Your task to perform on an android device: Open calendar and show me the first week of next month Image 0: 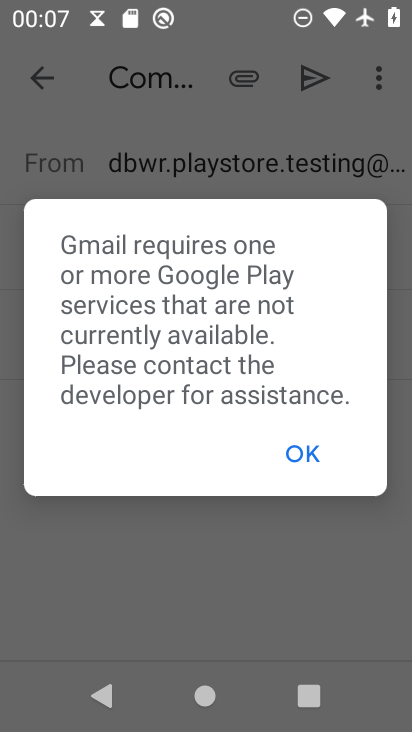
Step 0: press back button
Your task to perform on an android device: Open calendar and show me the first week of next month Image 1: 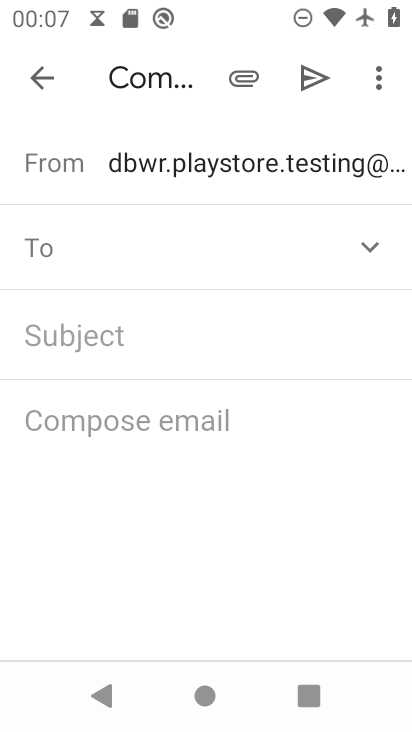
Step 1: press home button
Your task to perform on an android device: Open calendar and show me the first week of next month Image 2: 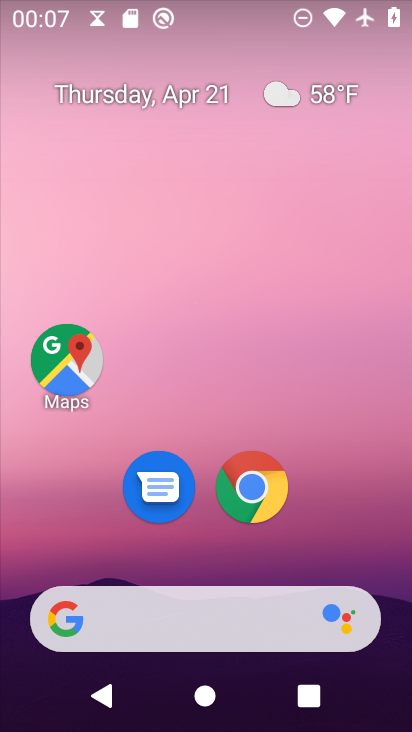
Step 2: drag from (337, 510) to (170, 21)
Your task to perform on an android device: Open calendar and show me the first week of next month Image 3: 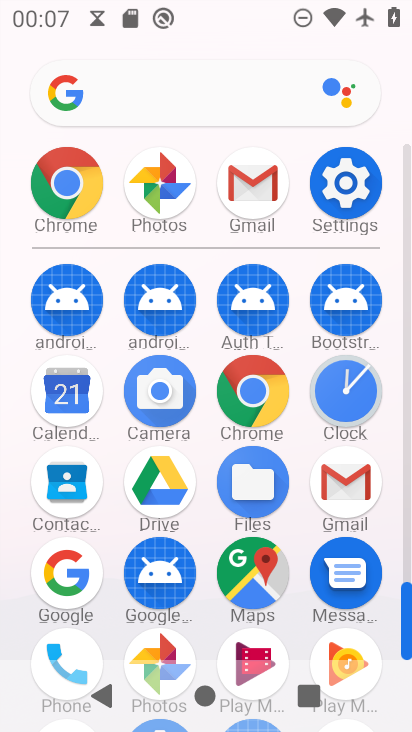
Step 3: drag from (4, 503) to (1, 171)
Your task to perform on an android device: Open calendar and show me the first week of next month Image 4: 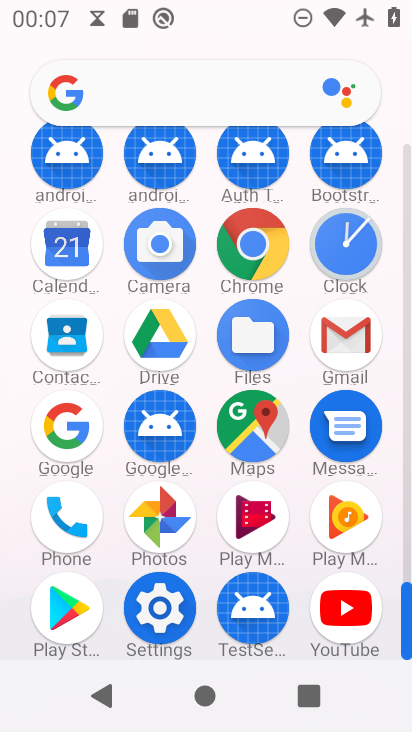
Step 4: drag from (16, 278) to (14, 553)
Your task to perform on an android device: Open calendar and show me the first week of next month Image 5: 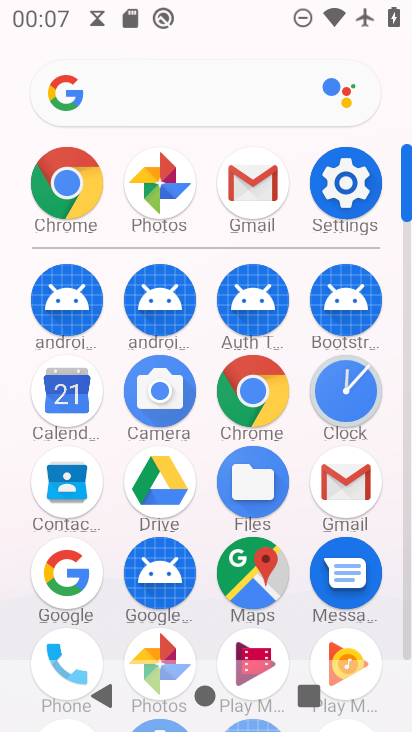
Step 5: drag from (7, 633) to (2, 363)
Your task to perform on an android device: Open calendar and show me the first week of next month Image 6: 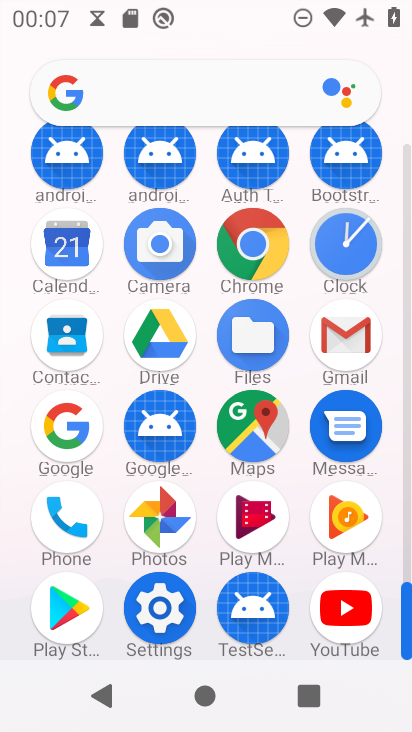
Step 6: click (60, 236)
Your task to perform on an android device: Open calendar and show me the first week of next month Image 7: 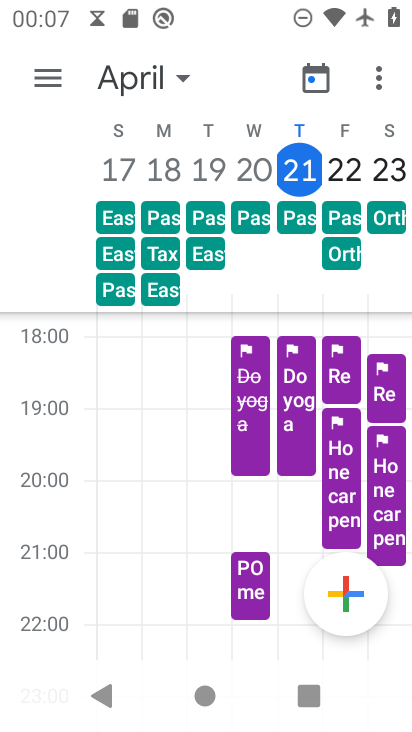
Step 7: click (127, 81)
Your task to perform on an android device: Open calendar and show me the first week of next month Image 8: 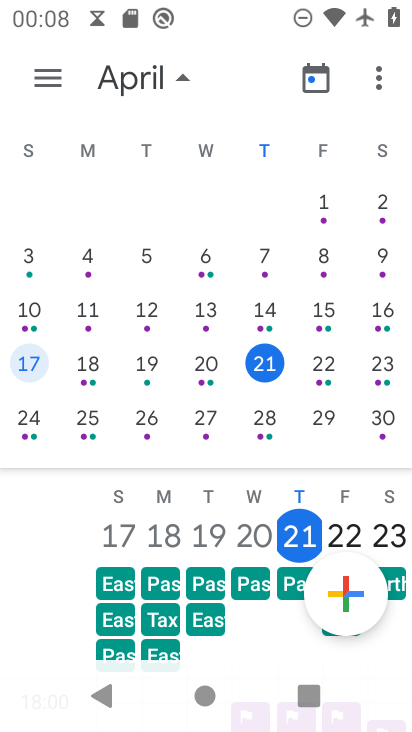
Step 8: drag from (361, 309) to (6, 306)
Your task to perform on an android device: Open calendar and show me the first week of next month Image 9: 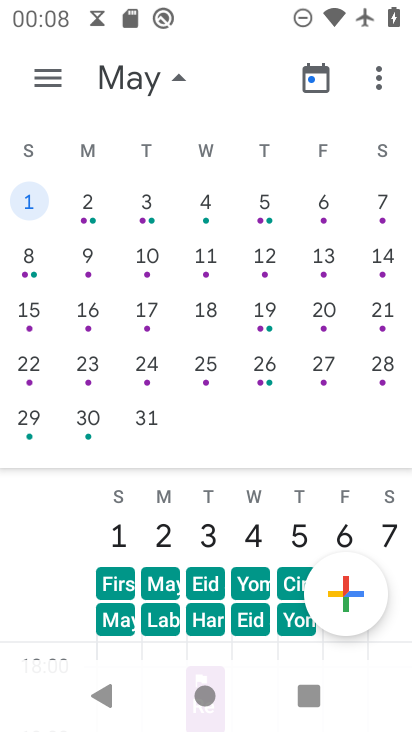
Step 9: click (37, 196)
Your task to perform on an android device: Open calendar and show me the first week of next month Image 10: 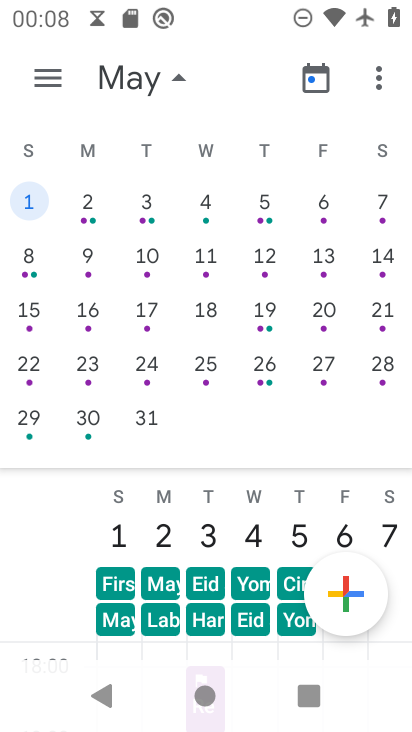
Step 10: click (63, 80)
Your task to perform on an android device: Open calendar and show me the first week of next month Image 11: 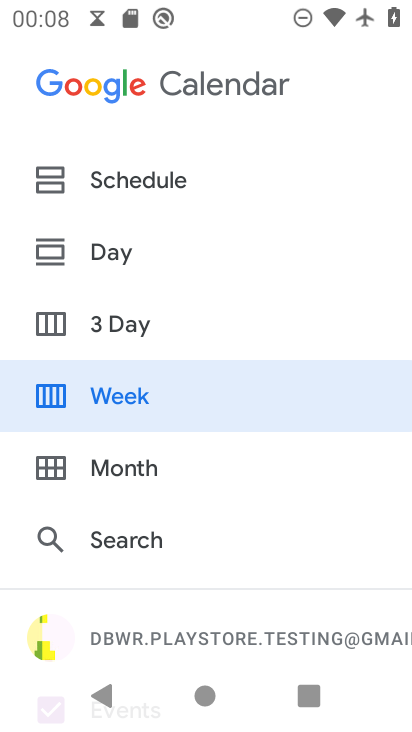
Step 11: click (132, 379)
Your task to perform on an android device: Open calendar and show me the first week of next month Image 12: 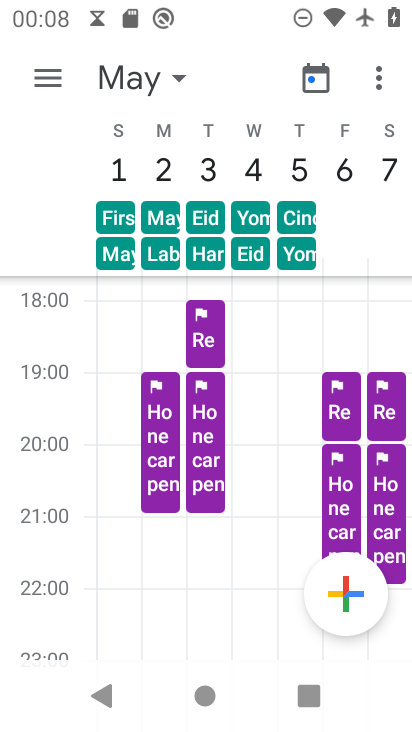
Step 12: task complete